Your task to perform on an android device: Open the map Image 0: 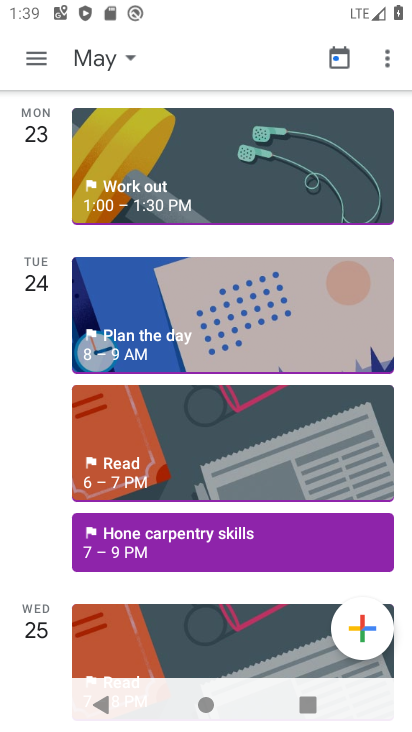
Step 0: press home button
Your task to perform on an android device: Open the map Image 1: 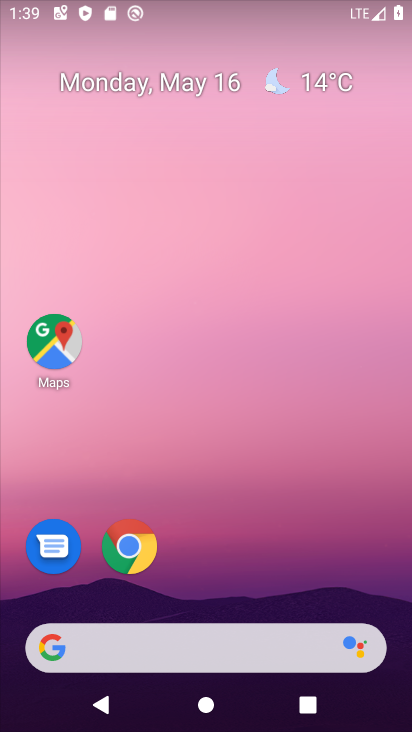
Step 1: drag from (321, 675) to (370, 40)
Your task to perform on an android device: Open the map Image 2: 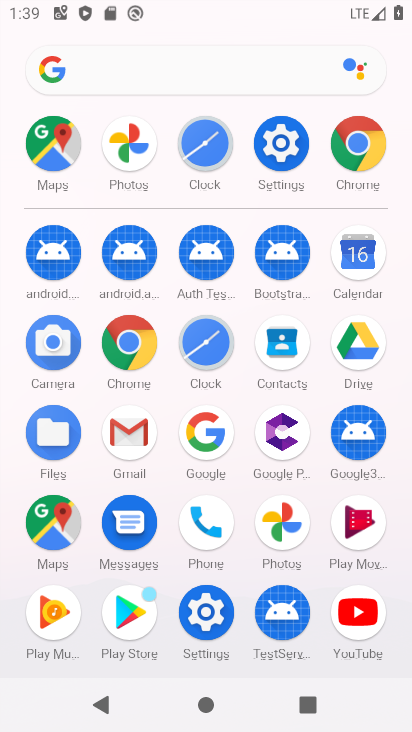
Step 2: click (53, 511)
Your task to perform on an android device: Open the map Image 3: 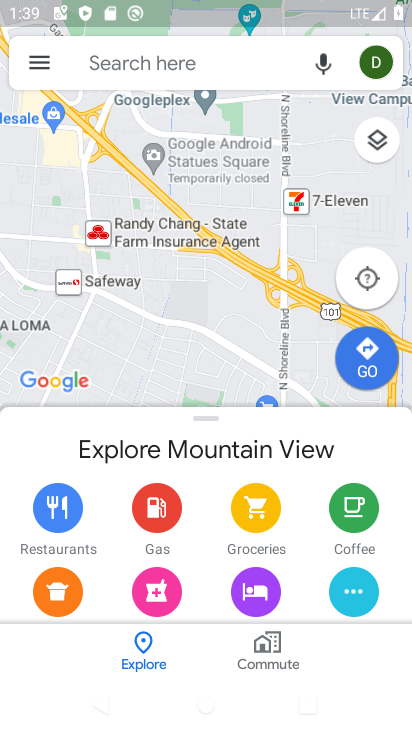
Step 3: click (380, 263)
Your task to perform on an android device: Open the map Image 4: 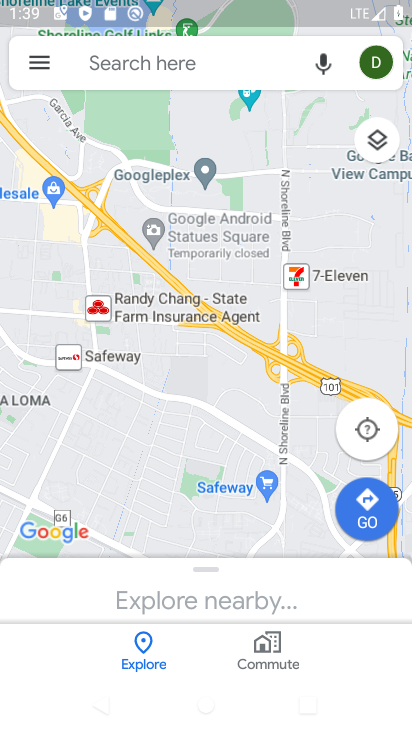
Step 4: task complete